Your task to perform on an android device: Search for sushi restaurants on Maps Image 0: 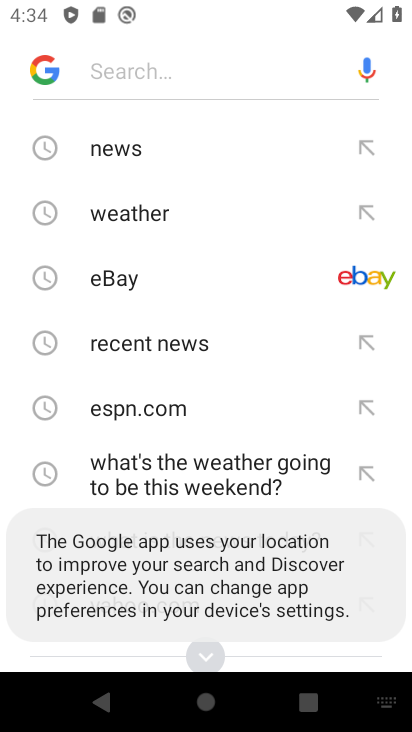
Step 0: press back button
Your task to perform on an android device: Search for sushi restaurants on Maps Image 1: 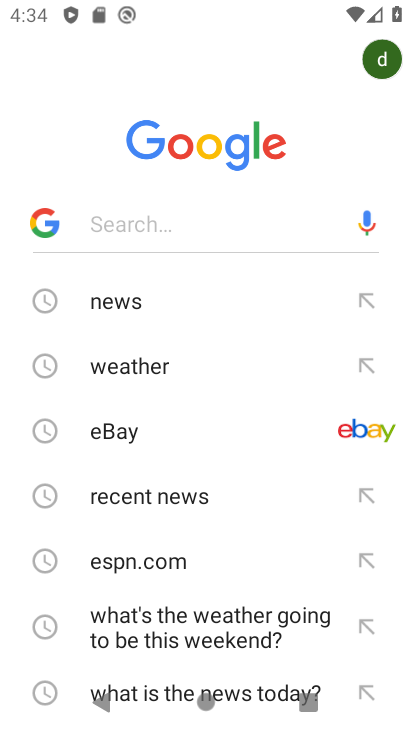
Step 1: press back button
Your task to perform on an android device: Search for sushi restaurants on Maps Image 2: 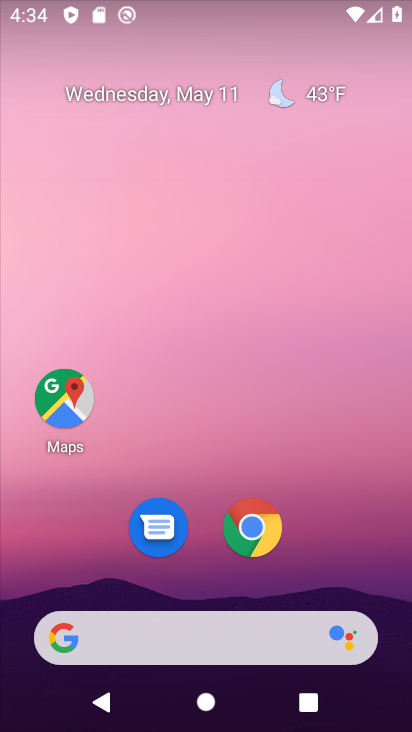
Step 2: click (89, 388)
Your task to perform on an android device: Search for sushi restaurants on Maps Image 3: 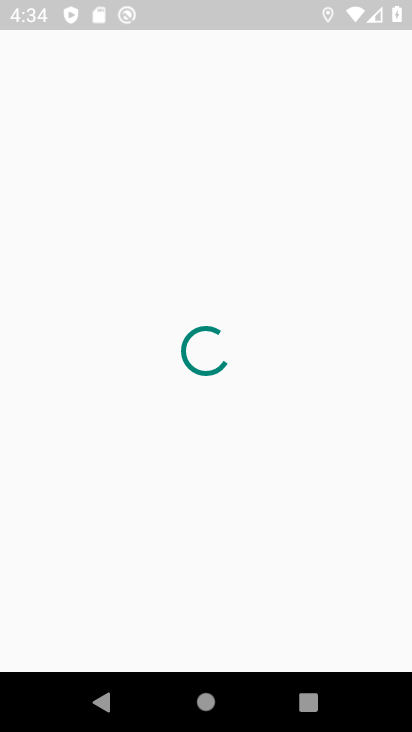
Step 3: click (231, 82)
Your task to perform on an android device: Search for sushi restaurants on Maps Image 4: 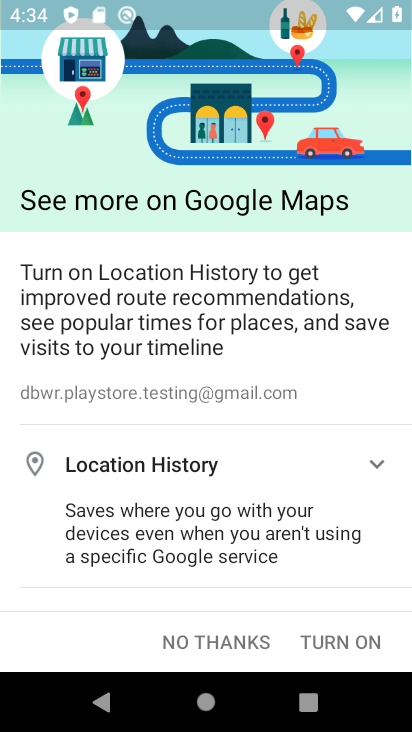
Step 4: click (220, 644)
Your task to perform on an android device: Search for sushi restaurants on Maps Image 5: 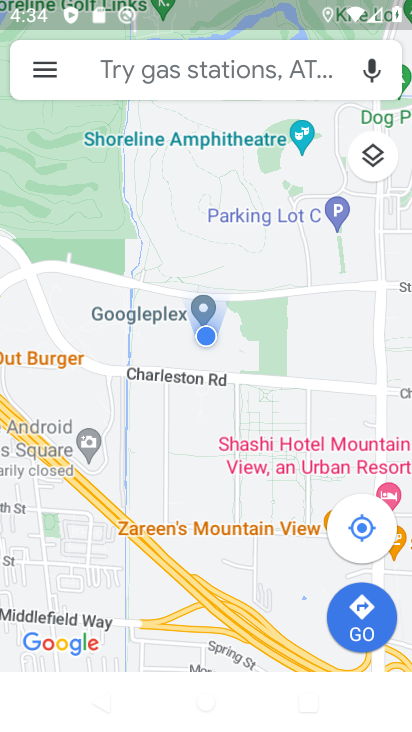
Step 5: click (231, 93)
Your task to perform on an android device: Search for sushi restaurants on Maps Image 6: 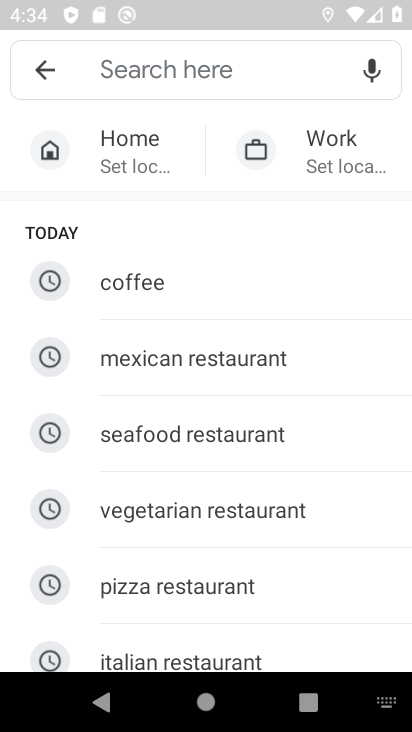
Step 6: type "sushi restaurants"
Your task to perform on an android device: Search for sushi restaurants on Maps Image 7: 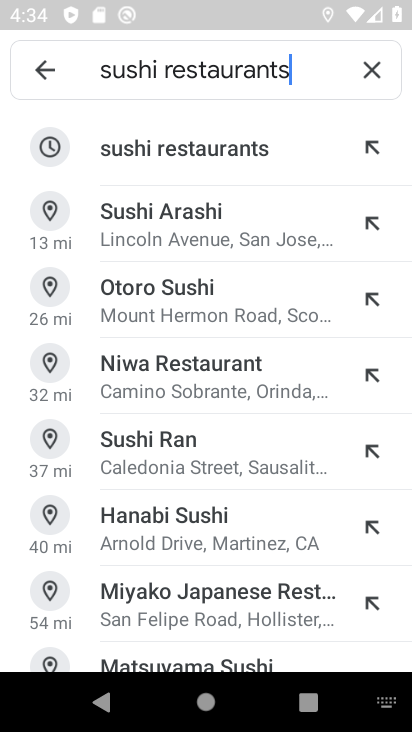
Step 7: click (173, 162)
Your task to perform on an android device: Search for sushi restaurants on Maps Image 8: 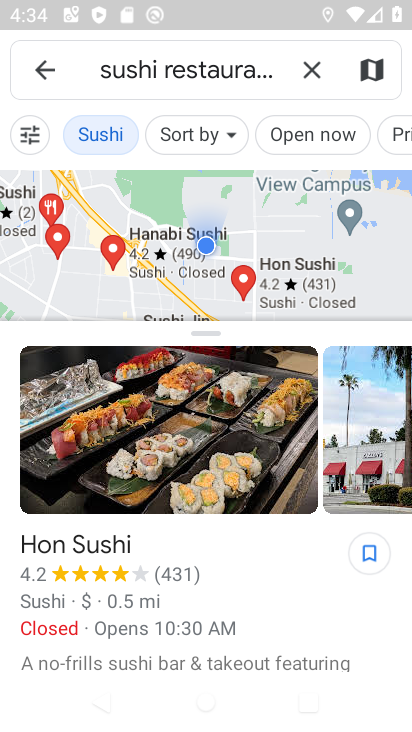
Step 8: task complete